Your task to perform on an android device: Open accessibility settings Image 0: 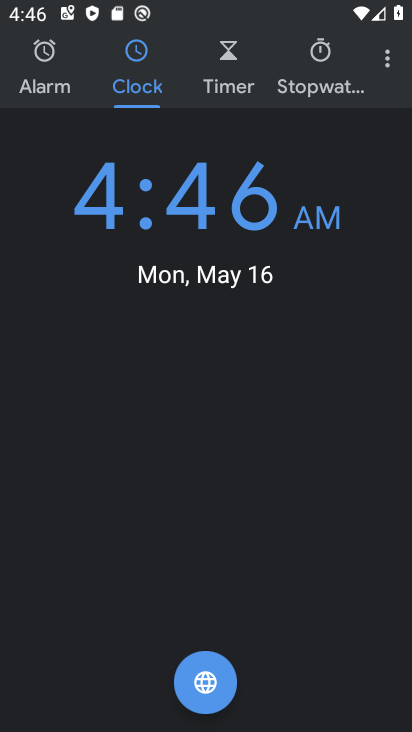
Step 0: press home button
Your task to perform on an android device: Open accessibility settings Image 1: 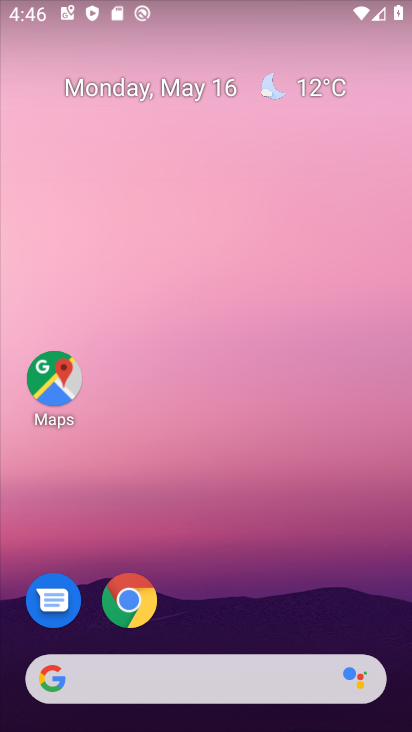
Step 1: drag from (185, 644) to (261, 265)
Your task to perform on an android device: Open accessibility settings Image 2: 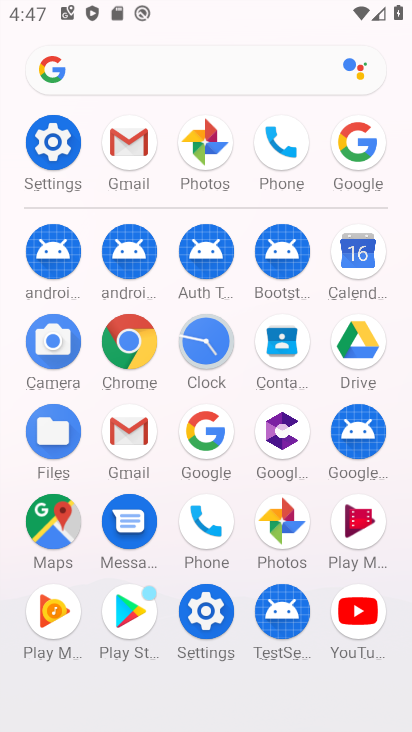
Step 2: click (49, 143)
Your task to perform on an android device: Open accessibility settings Image 3: 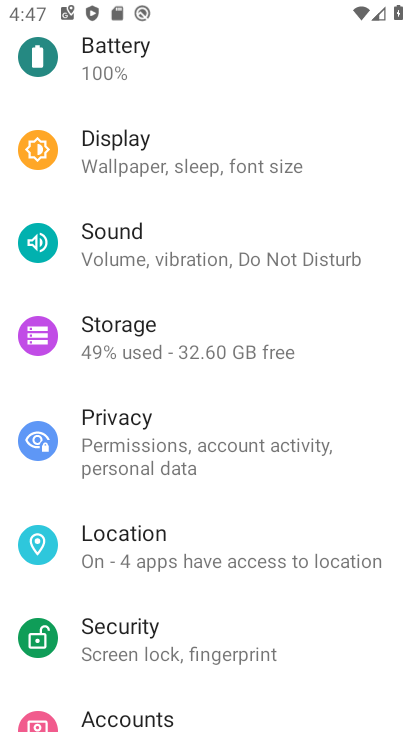
Step 3: drag from (156, 714) to (201, 336)
Your task to perform on an android device: Open accessibility settings Image 4: 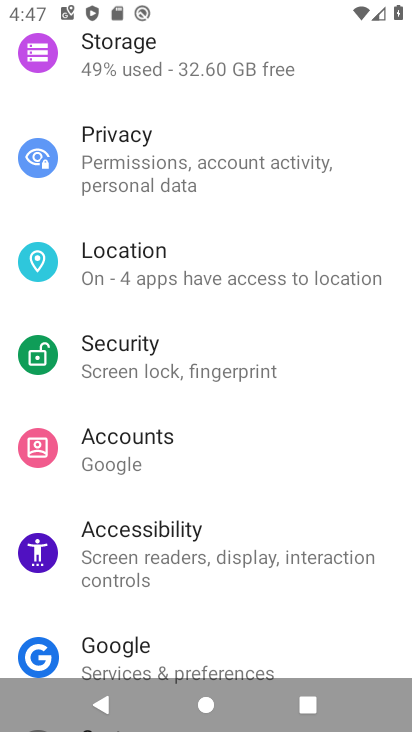
Step 4: click (174, 549)
Your task to perform on an android device: Open accessibility settings Image 5: 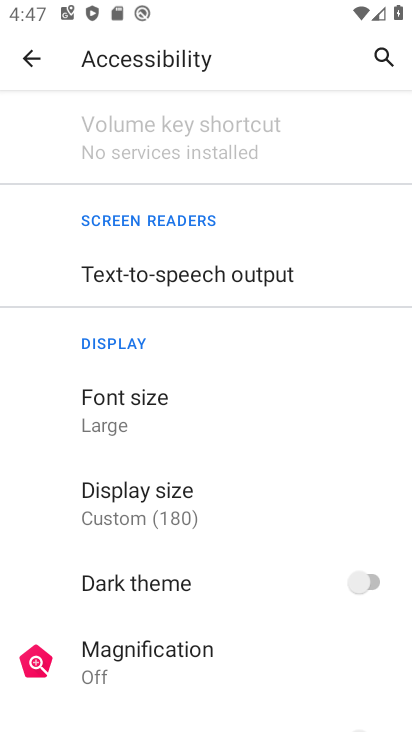
Step 5: task complete